Your task to perform on an android device: change notification settings in the gmail app Image 0: 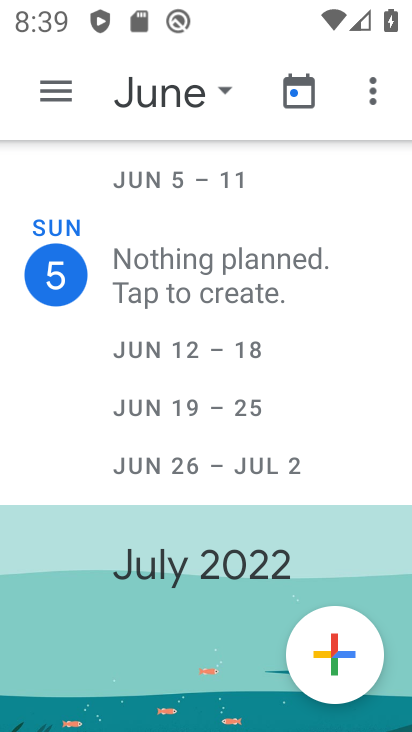
Step 0: press home button
Your task to perform on an android device: change notification settings in the gmail app Image 1: 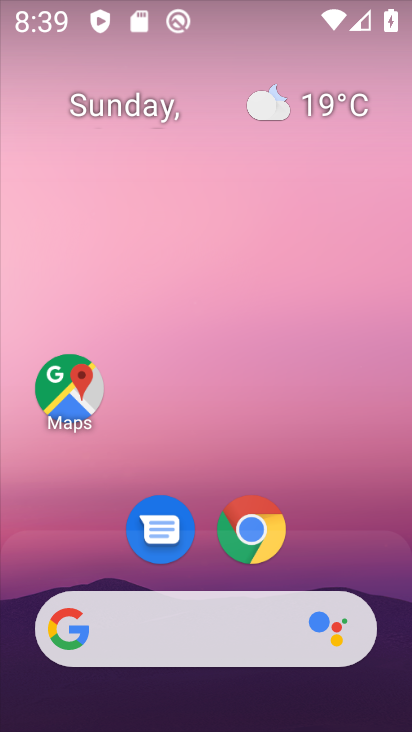
Step 1: drag from (94, 588) to (170, 193)
Your task to perform on an android device: change notification settings in the gmail app Image 2: 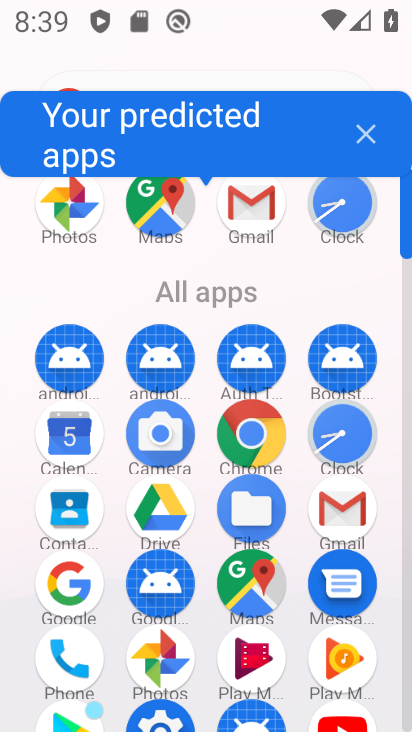
Step 2: drag from (189, 651) to (233, 398)
Your task to perform on an android device: change notification settings in the gmail app Image 3: 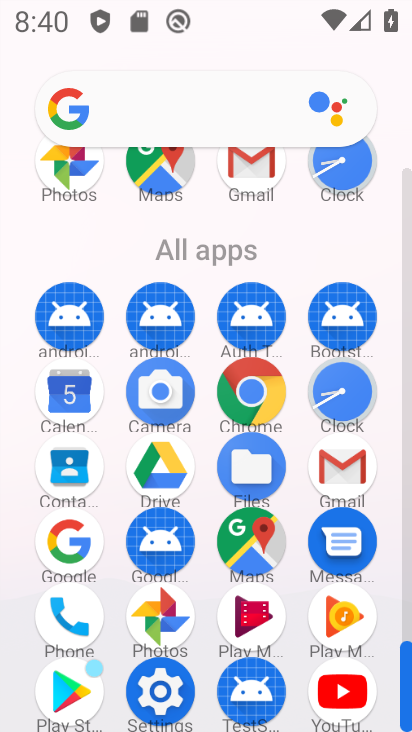
Step 3: click (343, 485)
Your task to perform on an android device: change notification settings in the gmail app Image 4: 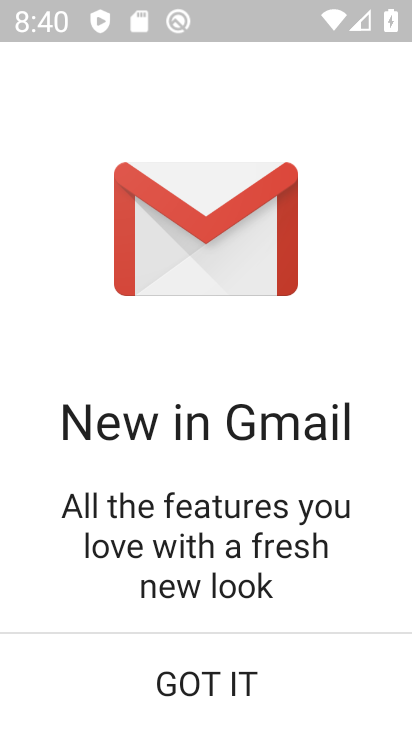
Step 4: click (190, 693)
Your task to perform on an android device: change notification settings in the gmail app Image 5: 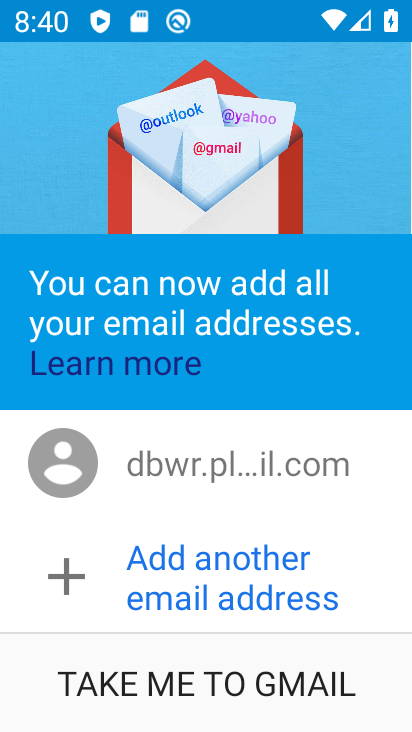
Step 5: click (230, 711)
Your task to perform on an android device: change notification settings in the gmail app Image 6: 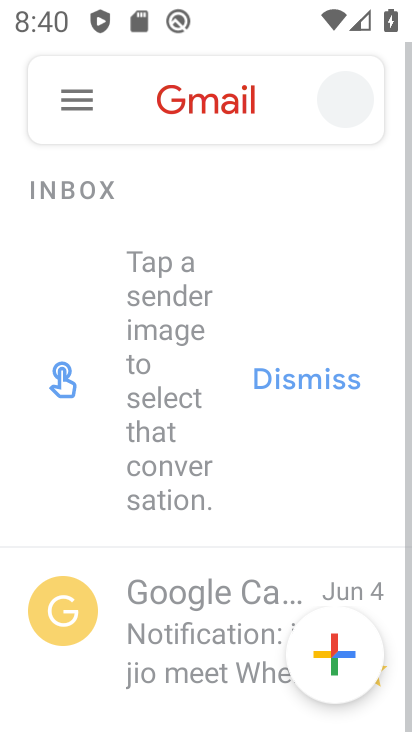
Step 6: click (61, 100)
Your task to perform on an android device: change notification settings in the gmail app Image 7: 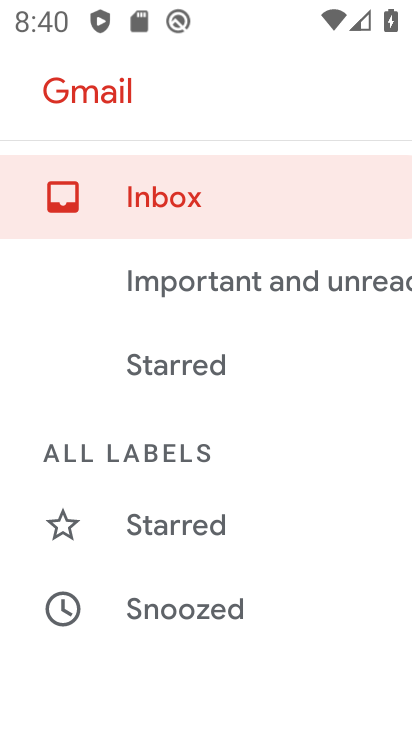
Step 7: drag from (201, 534) to (335, 51)
Your task to perform on an android device: change notification settings in the gmail app Image 8: 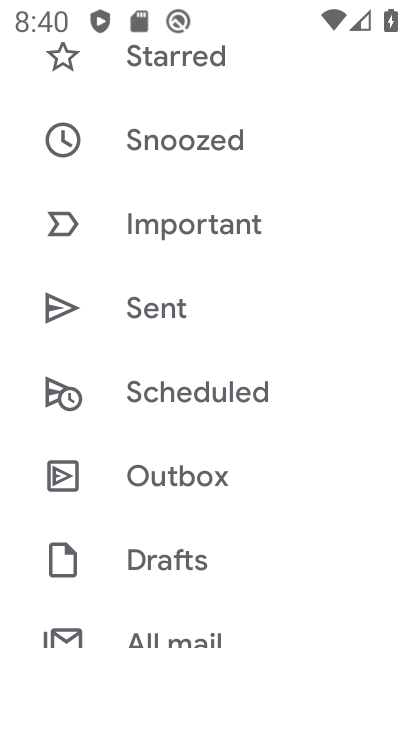
Step 8: drag from (212, 633) to (302, 168)
Your task to perform on an android device: change notification settings in the gmail app Image 9: 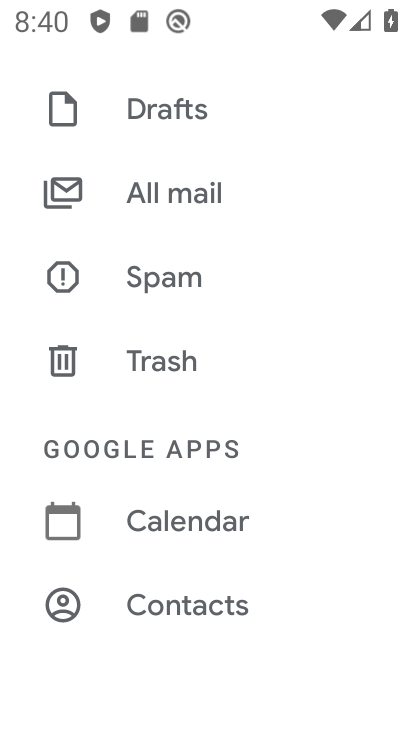
Step 9: drag from (189, 578) to (272, 221)
Your task to perform on an android device: change notification settings in the gmail app Image 10: 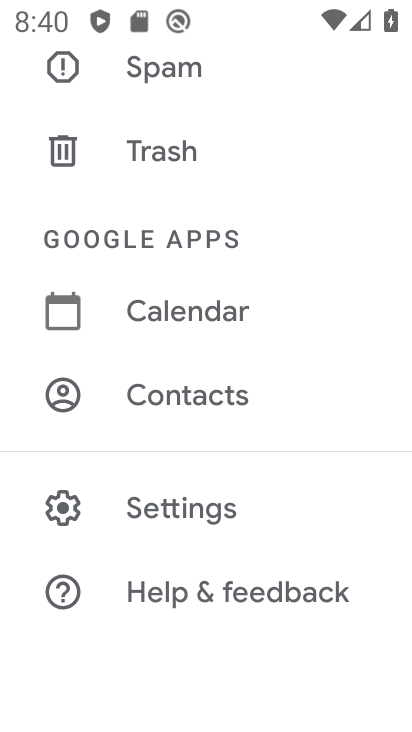
Step 10: click (211, 517)
Your task to perform on an android device: change notification settings in the gmail app Image 11: 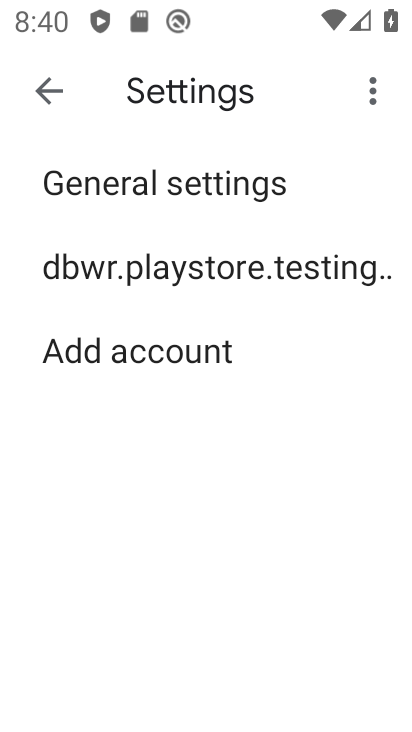
Step 11: click (291, 270)
Your task to perform on an android device: change notification settings in the gmail app Image 12: 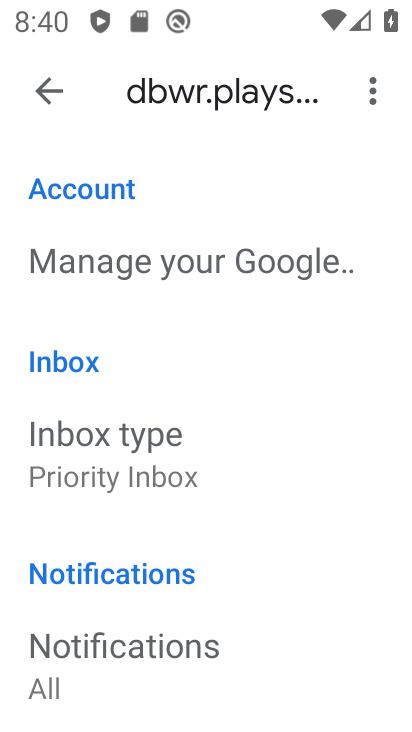
Step 12: drag from (202, 651) to (263, 280)
Your task to perform on an android device: change notification settings in the gmail app Image 13: 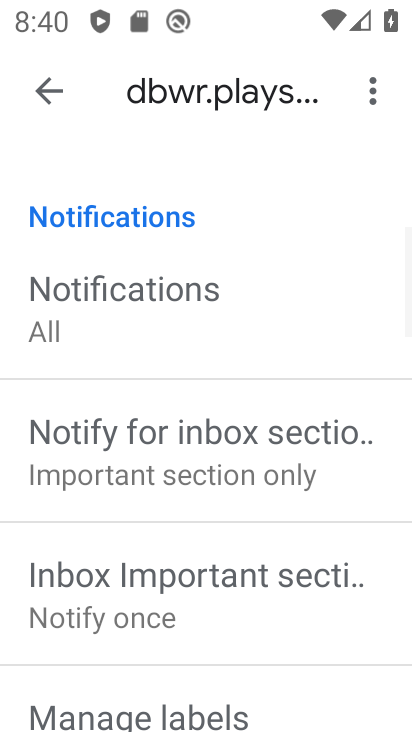
Step 13: drag from (237, 543) to (322, 314)
Your task to perform on an android device: change notification settings in the gmail app Image 14: 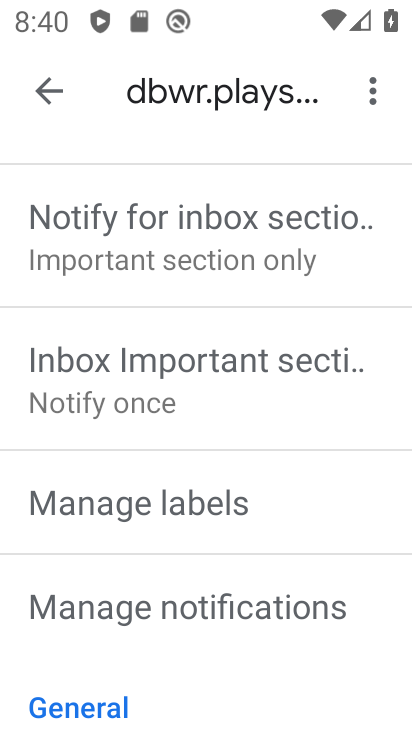
Step 14: drag from (165, 626) to (221, 444)
Your task to perform on an android device: change notification settings in the gmail app Image 15: 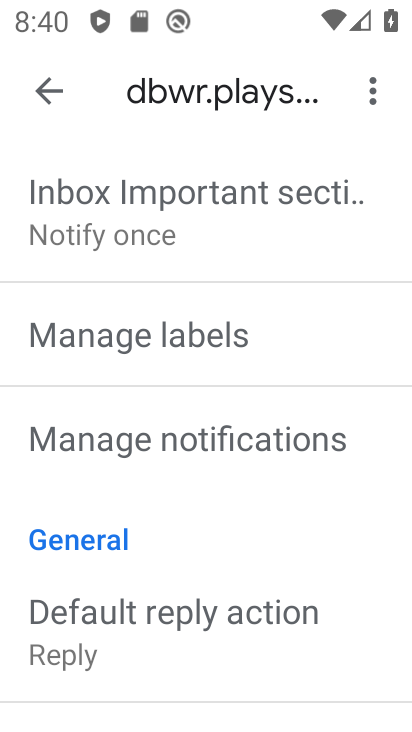
Step 15: click (201, 446)
Your task to perform on an android device: change notification settings in the gmail app Image 16: 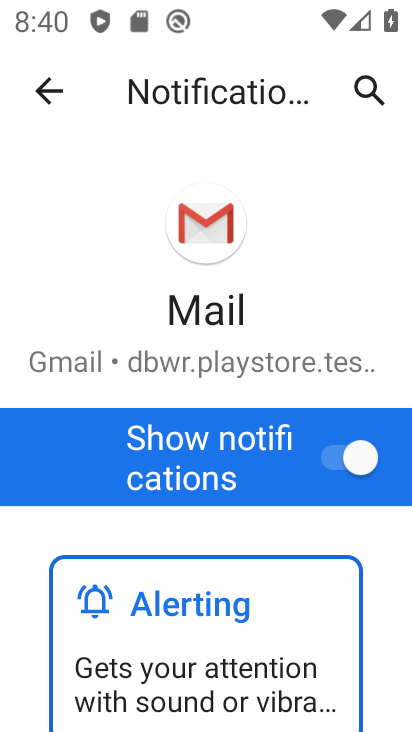
Step 16: drag from (246, 647) to (296, 256)
Your task to perform on an android device: change notification settings in the gmail app Image 17: 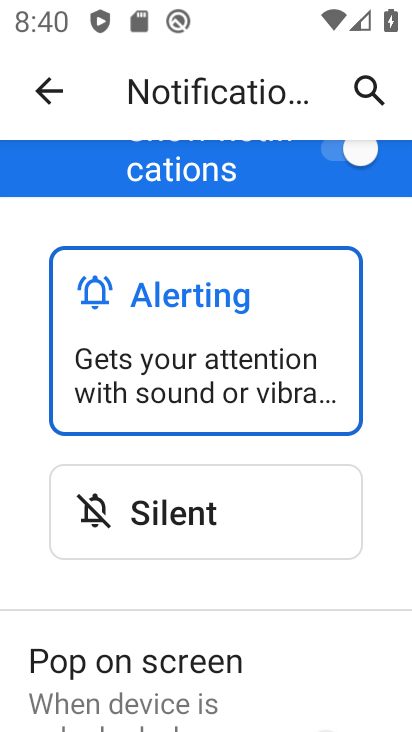
Step 17: click (200, 530)
Your task to perform on an android device: change notification settings in the gmail app Image 18: 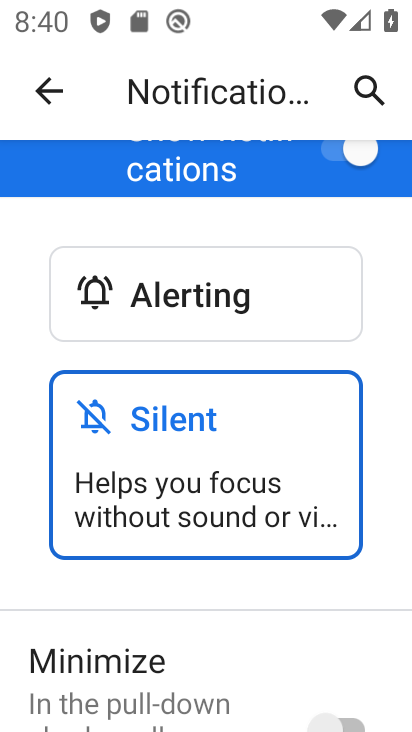
Step 18: drag from (151, 618) to (242, 292)
Your task to perform on an android device: change notification settings in the gmail app Image 19: 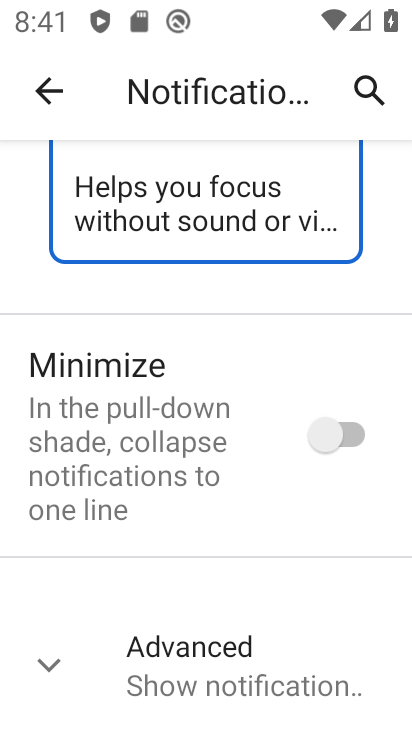
Step 19: click (336, 418)
Your task to perform on an android device: change notification settings in the gmail app Image 20: 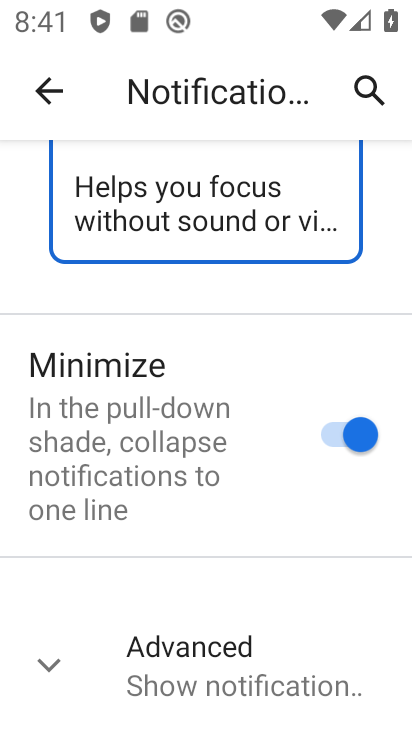
Step 20: drag from (220, 647) to (291, 334)
Your task to perform on an android device: change notification settings in the gmail app Image 21: 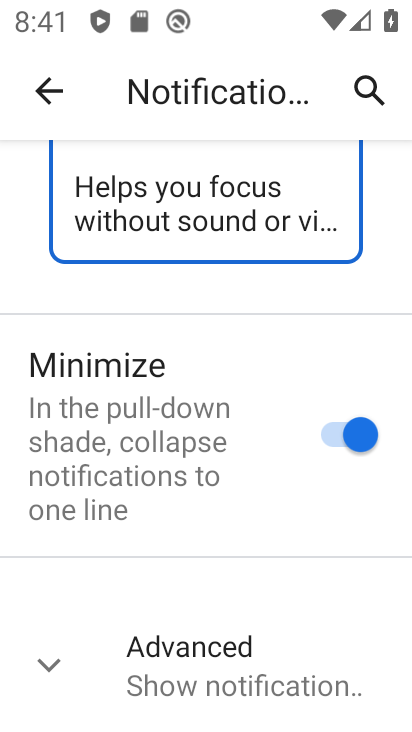
Step 21: drag from (255, 583) to (296, 403)
Your task to perform on an android device: change notification settings in the gmail app Image 22: 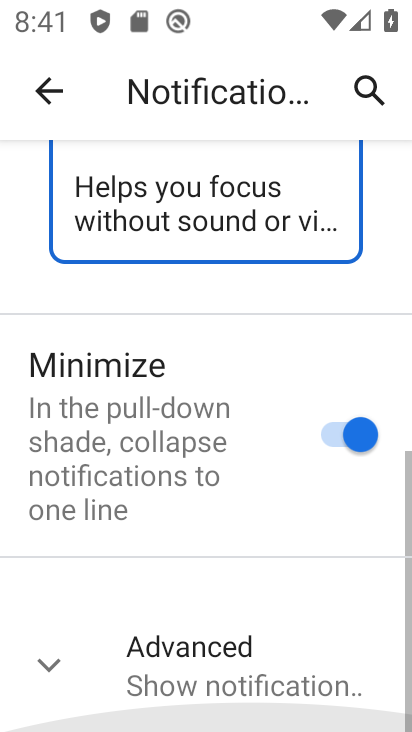
Step 22: click (279, 668)
Your task to perform on an android device: change notification settings in the gmail app Image 23: 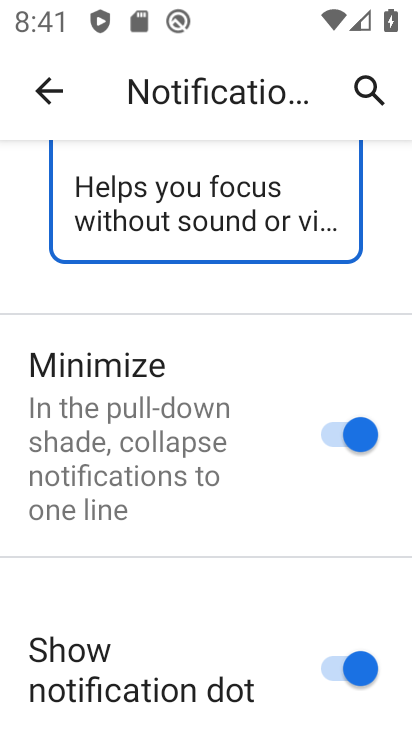
Step 23: click (322, 670)
Your task to perform on an android device: change notification settings in the gmail app Image 24: 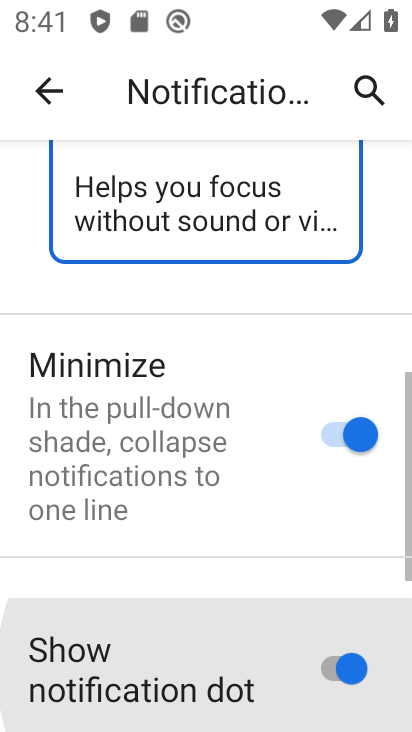
Step 24: drag from (131, 682) to (267, 249)
Your task to perform on an android device: change notification settings in the gmail app Image 25: 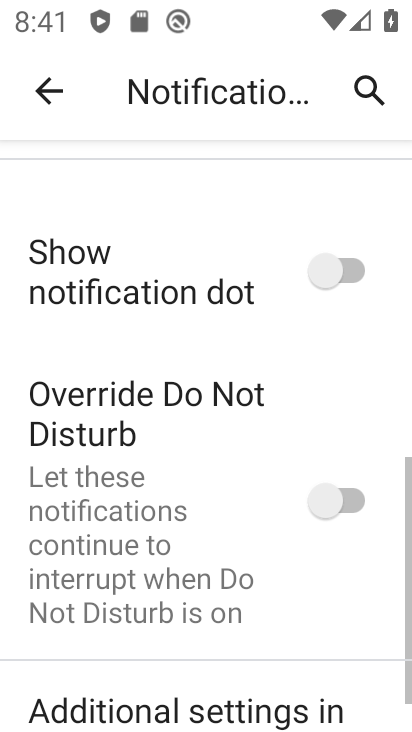
Step 25: drag from (181, 704) to (264, 395)
Your task to perform on an android device: change notification settings in the gmail app Image 26: 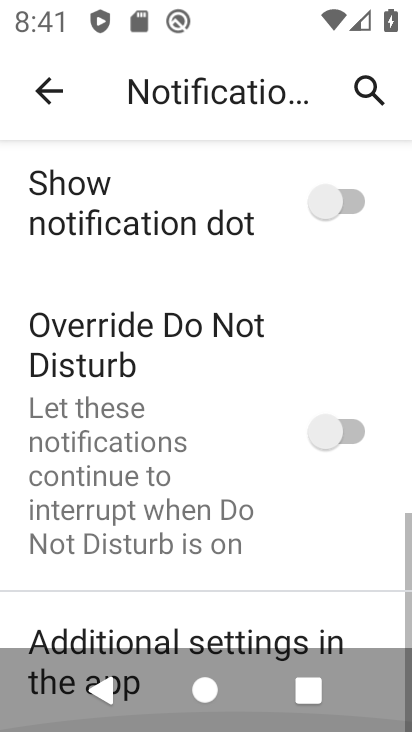
Step 26: click (368, 439)
Your task to perform on an android device: change notification settings in the gmail app Image 27: 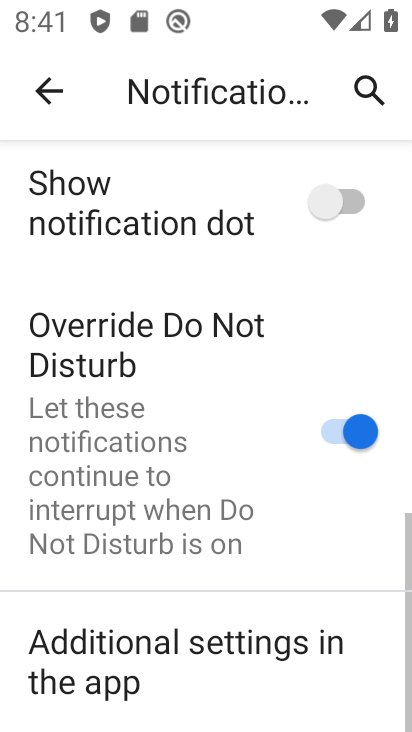
Step 27: task complete